Your task to perform on an android device: Open Chrome and go to the settings page Image 0: 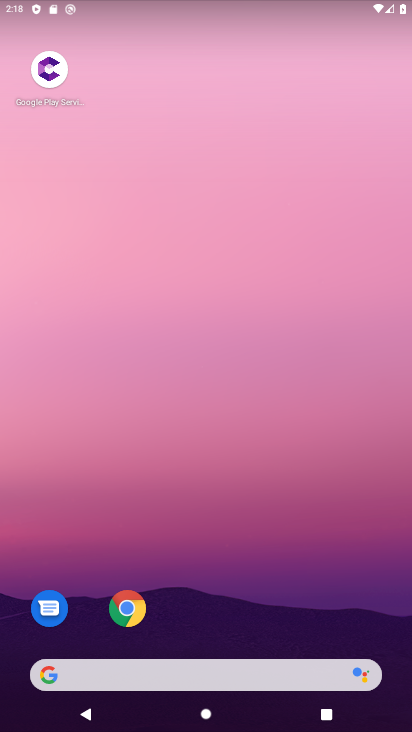
Step 0: click (136, 624)
Your task to perform on an android device: Open Chrome and go to the settings page Image 1: 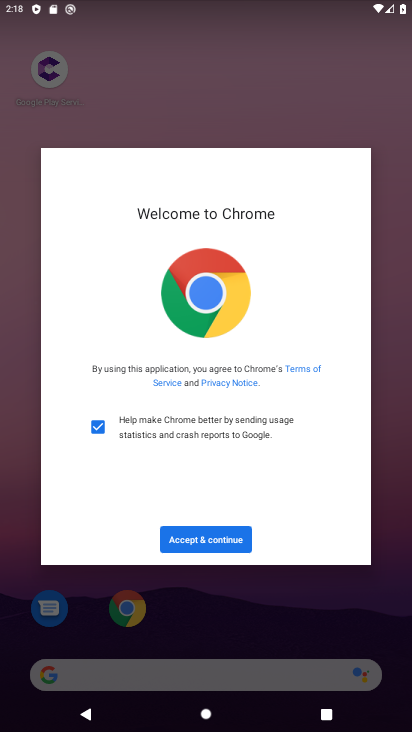
Step 1: click (229, 554)
Your task to perform on an android device: Open Chrome and go to the settings page Image 2: 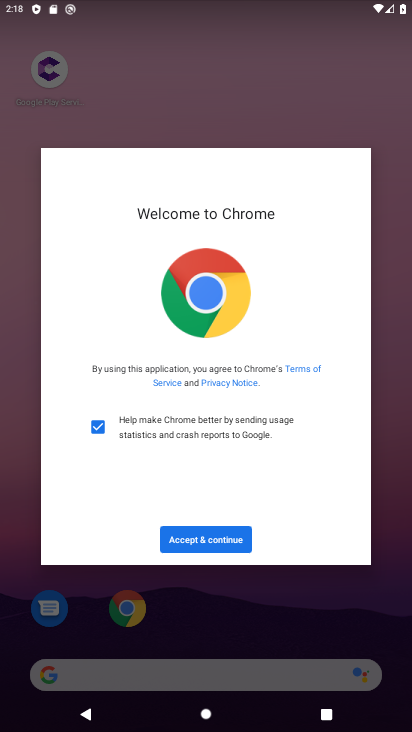
Step 2: click (207, 530)
Your task to perform on an android device: Open Chrome and go to the settings page Image 3: 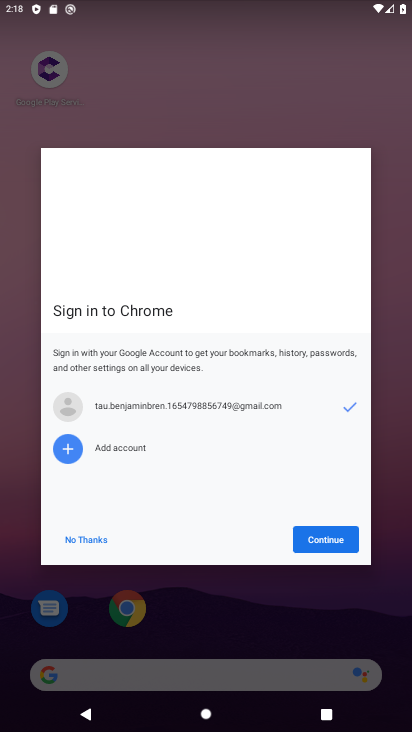
Step 3: click (318, 552)
Your task to perform on an android device: Open Chrome and go to the settings page Image 4: 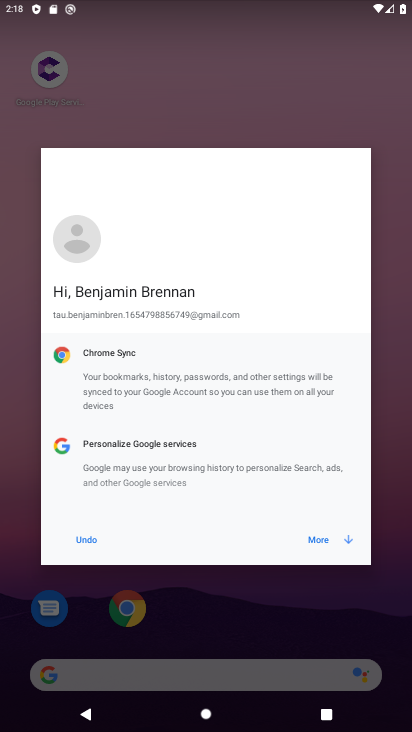
Step 4: click (320, 545)
Your task to perform on an android device: Open Chrome and go to the settings page Image 5: 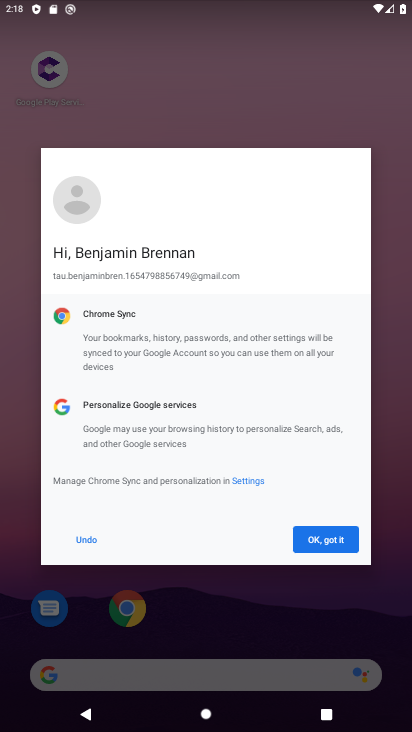
Step 5: click (310, 542)
Your task to perform on an android device: Open Chrome and go to the settings page Image 6: 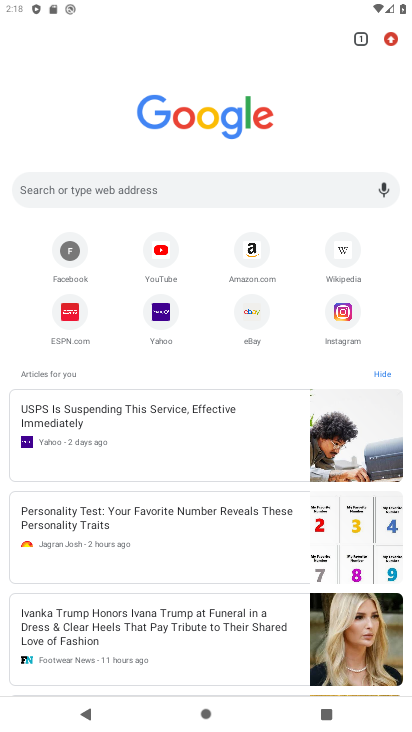
Step 6: task complete